Your task to perform on an android device: star an email in the gmail app Image 0: 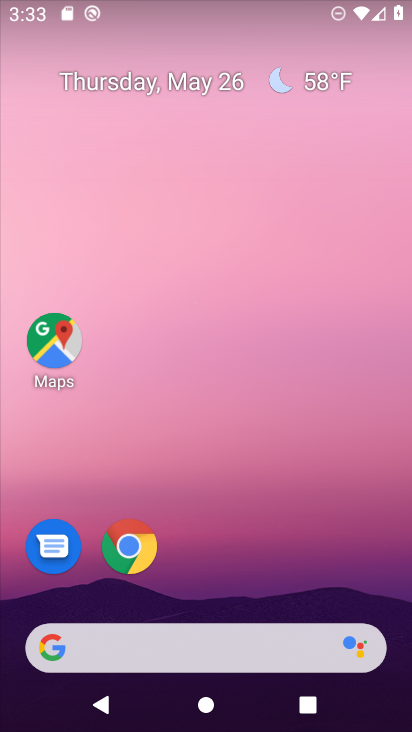
Step 0: press home button
Your task to perform on an android device: star an email in the gmail app Image 1: 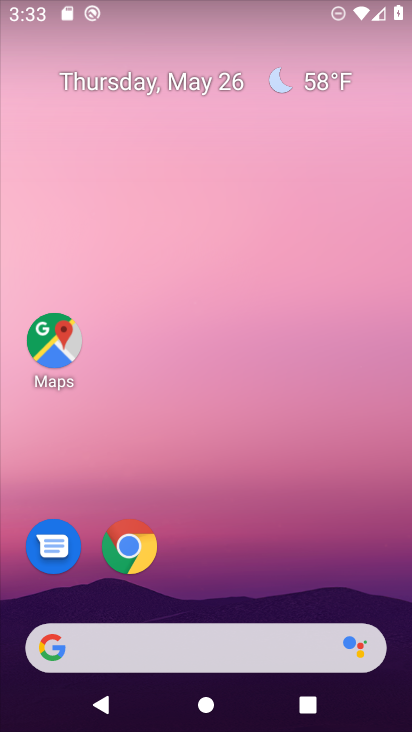
Step 1: drag from (253, 297) to (274, 13)
Your task to perform on an android device: star an email in the gmail app Image 2: 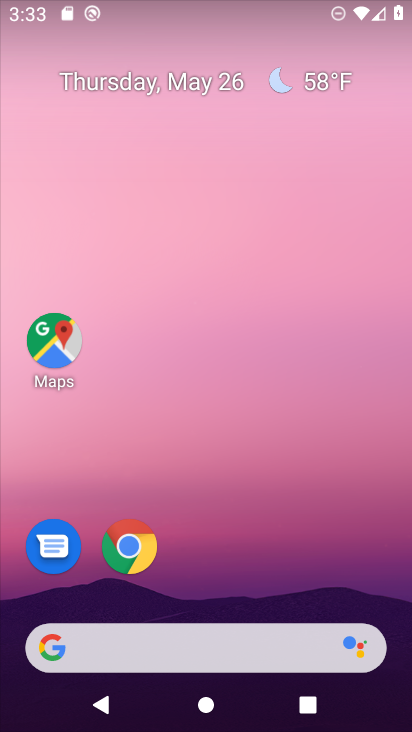
Step 2: drag from (228, 610) to (214, 23)
Your task to perform on an android device: star an email in the gmail app Image 3: 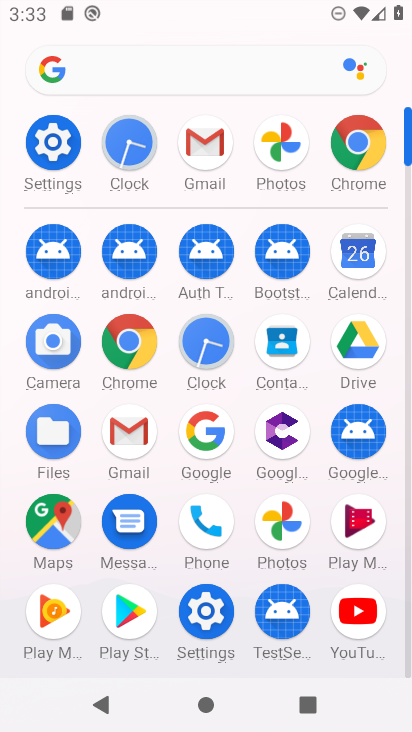
Step 3: click (205, 129)
Your task to perform on an android device: star an email in the gmail app Image 4: 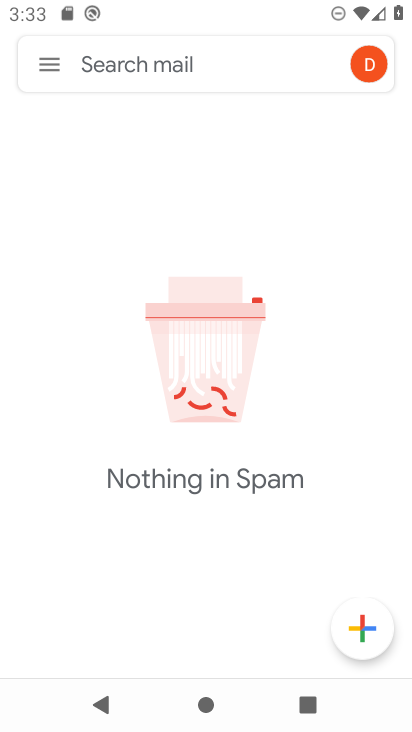
Step 4: click (45, 57)
Your task to perform on an android device: star an email in the gmail app Image 5: 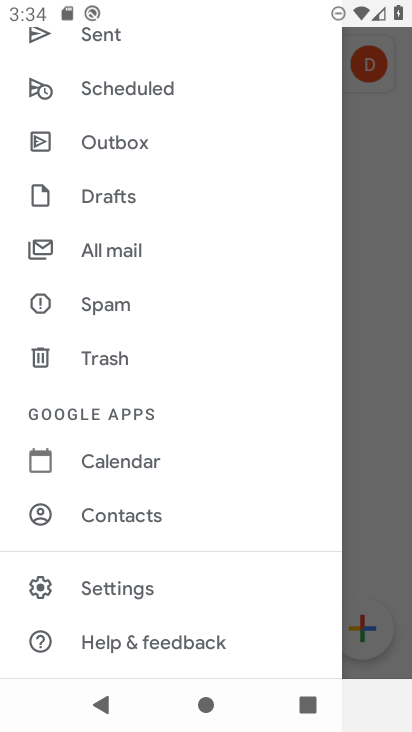
Step 5: click (139, 240)
Your task to perform on an android device: star an email in the gmail app Image 6: 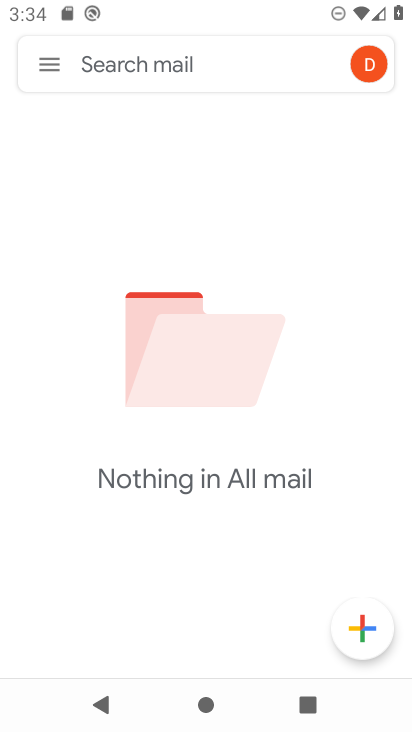
Step 6: task complete